Your task to perform on an android device: open a bookmark in the chrome app Image 0: 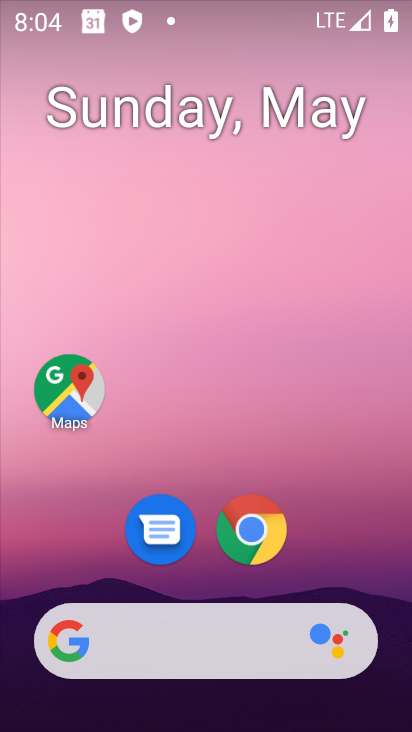
Step 0: click (246, 520)
Your task to perform on an android device: open a bookmark in the chrome app Image 1: 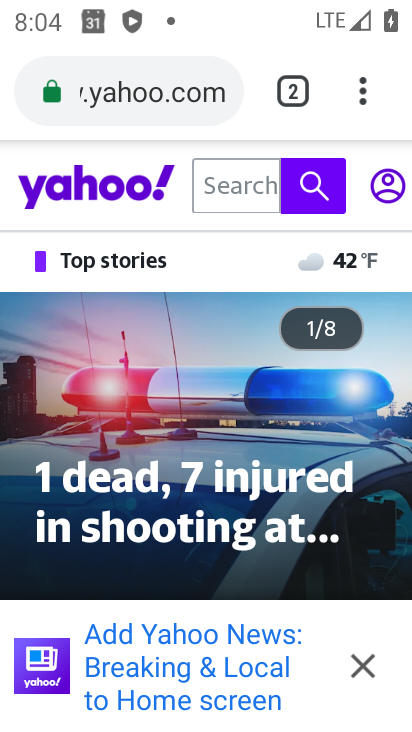
Step 1: drag from (343, 97) to (189, 354)
Your task to perform on an android device: open a bookmark in the chrome app Image 2: 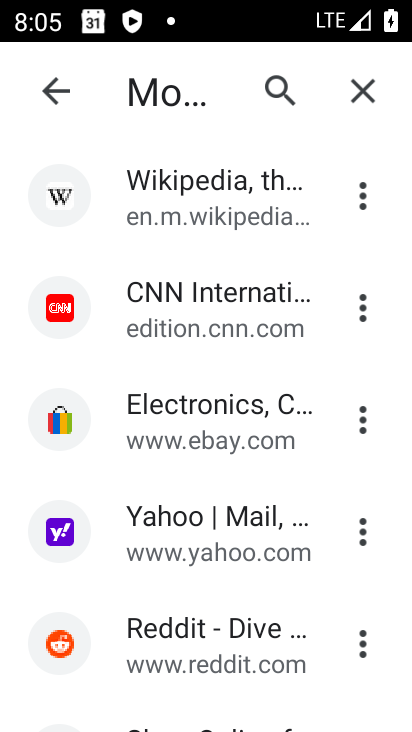
Step 2: click (207, 208)
Your task to perform on an android device: open a bookmark in the chrome app Image 3: 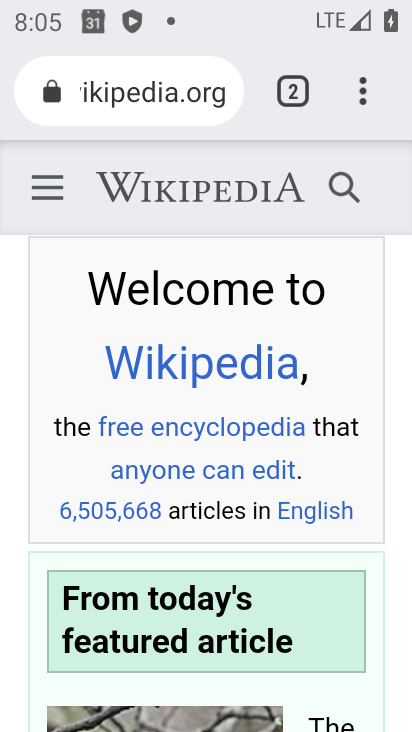
Step 3: task complete